Your task to perform on an android device: Open calendar and show me the first week of next month Image 0: 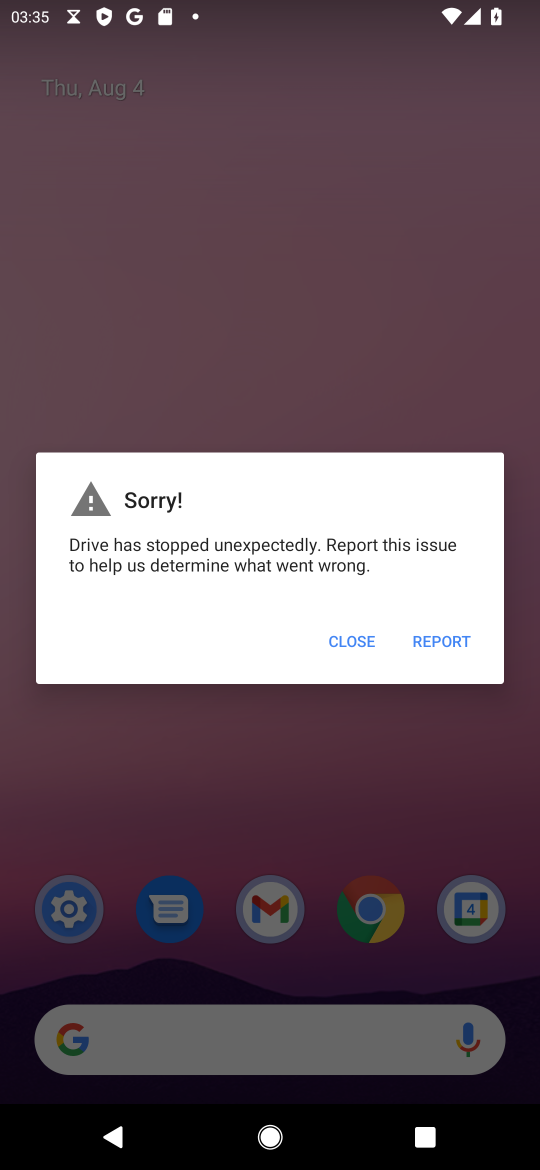
Step 0: press home button
Your task to perform on an android device: Open calendar and show me the first week of next month Image 1: 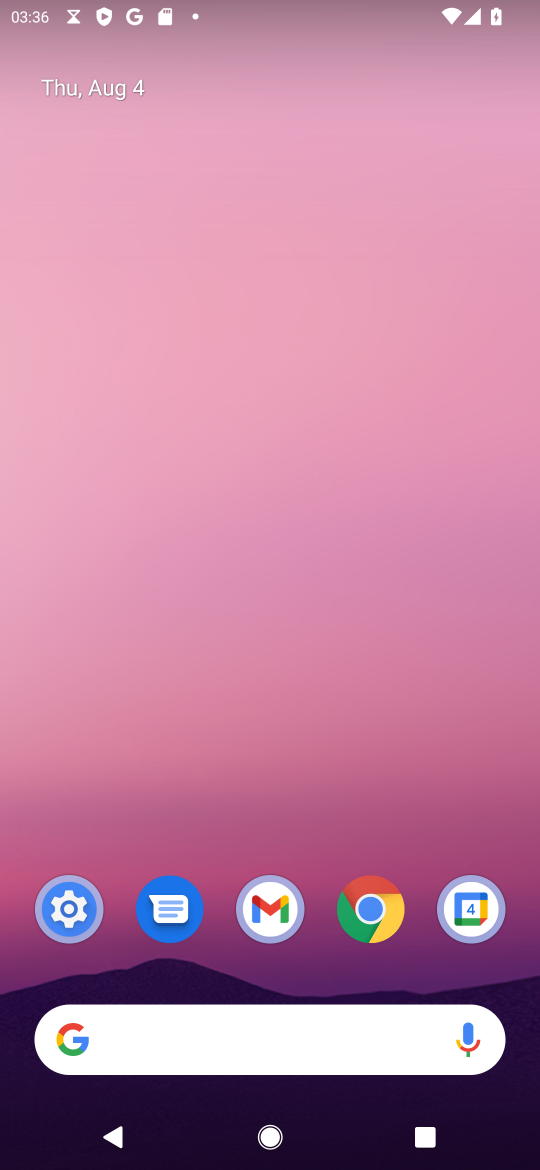
Step 1: drag from (197, 1025) to (314, 396)
Your task to perform on an android device: Open calendar and show me the first week of next month Image 2: 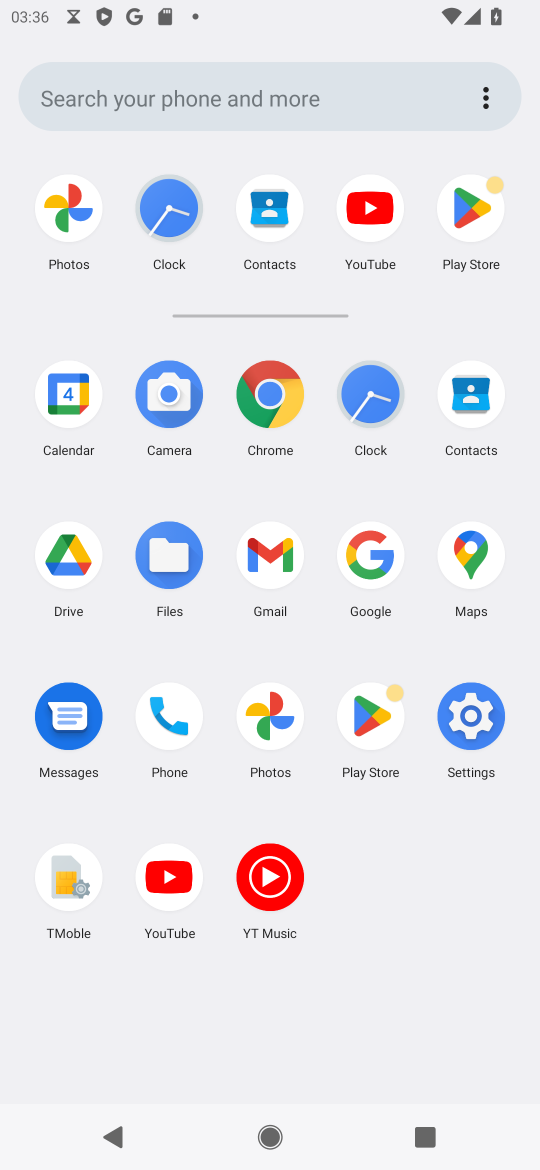
Step 2: click (78, 392)
Your task to perform on an android device: Open calendar and show me the first week of next month Image 3: 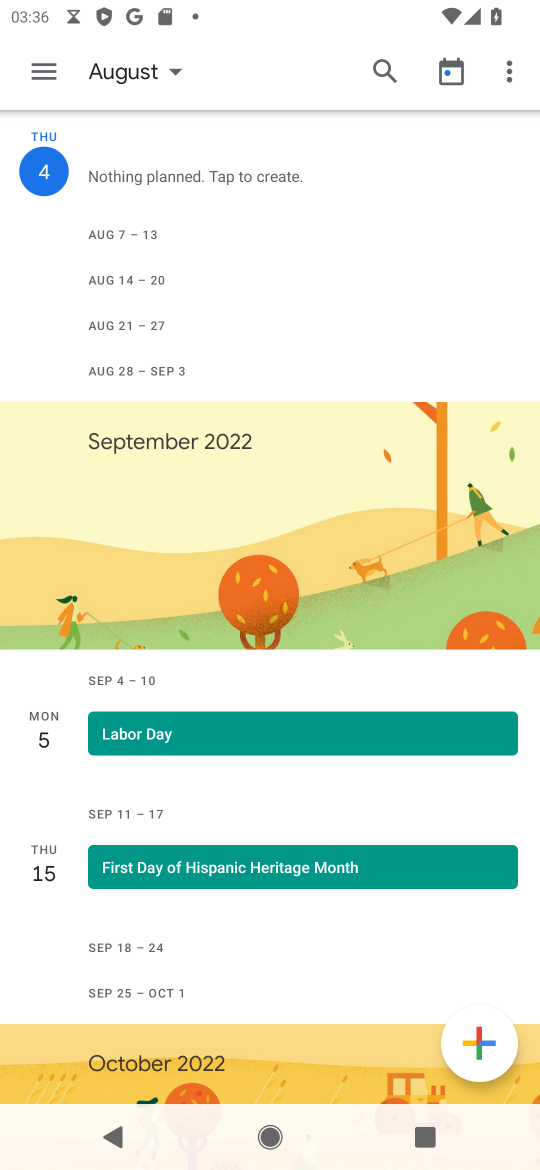
Step 3: click (143, 72)
Your task to perform on an android device: Open calendar and show me the first week of next month Image 4: 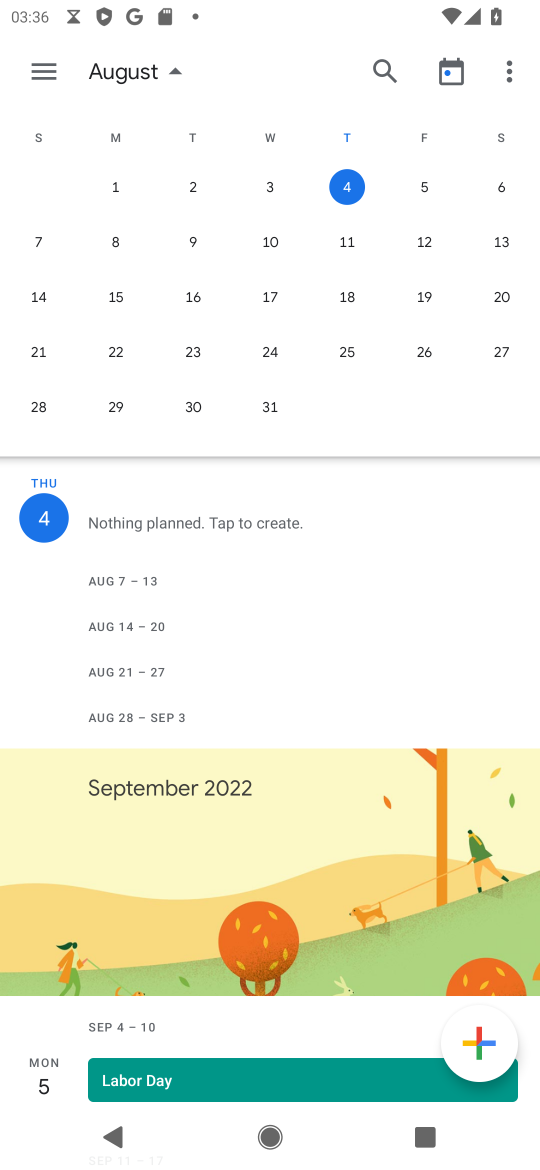
Step 4: task complete